Your task to perform on an android device: turn on translation in the chrome app Image 0: 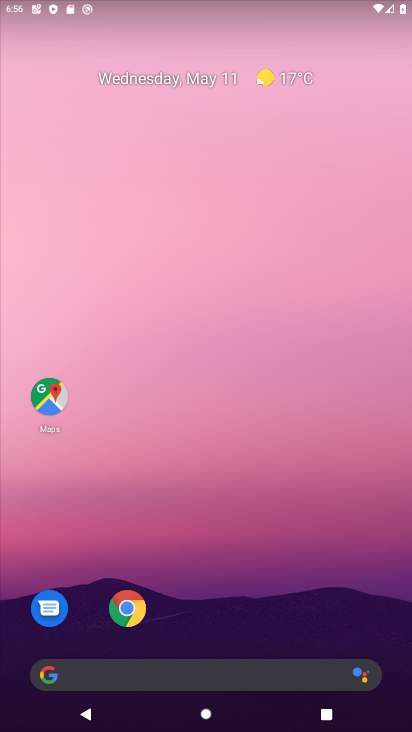
Step 0: click (118, 595)
Your task to perform on an android device: turn on translation in the chrome app Image 1: 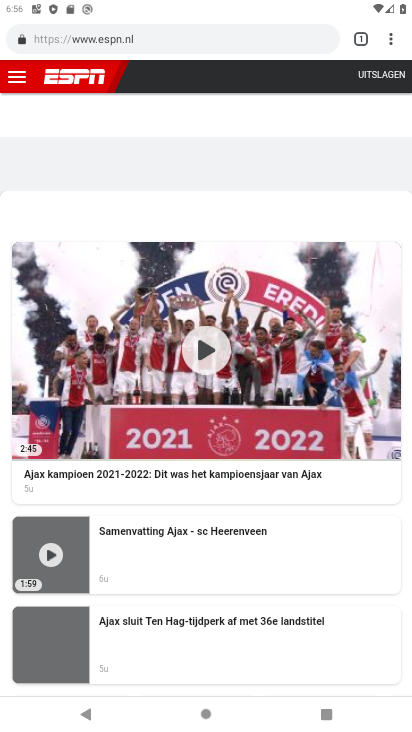
Step 1: click (382, 46)
Your task to perform on an android device: turn on translation in the chrome app Image 2: 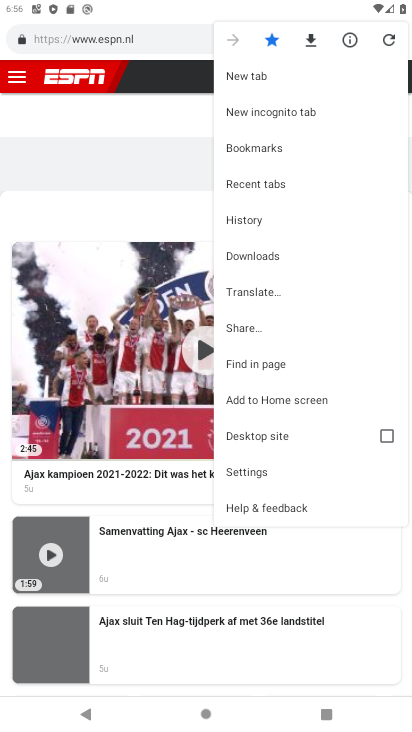
Step 2: click (251, 464)
Your task to perform on an android device: turn on translation in the chrome app Image 3: 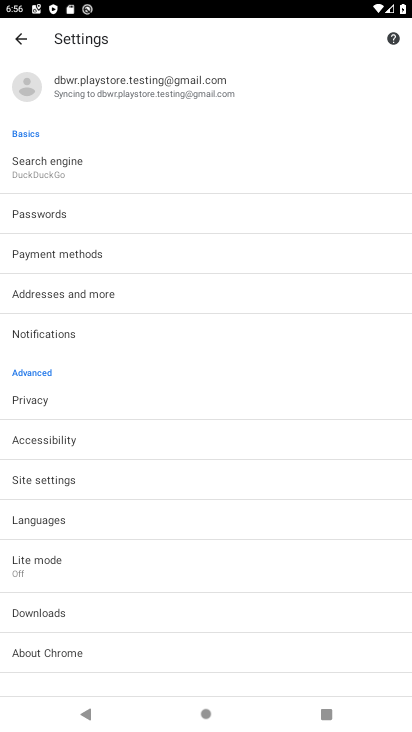
Step 3: click (199, 514)
Your task to perform on an android device: turn on translation in the chrome app Image 4: 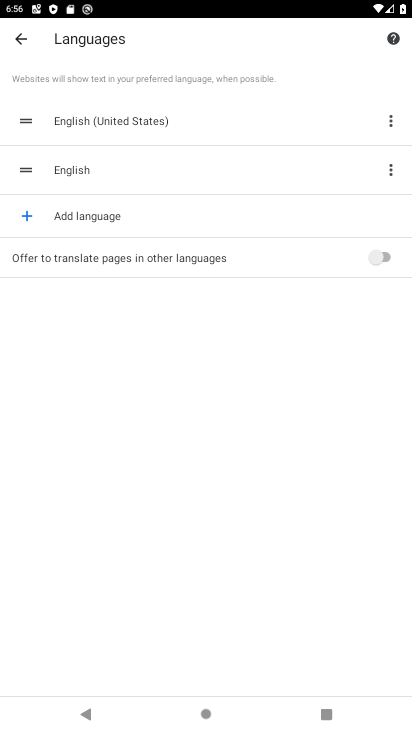
Step 4: click (366, 259)
Your task to perform on an android device: turn on translation in the chrome app Image 5: 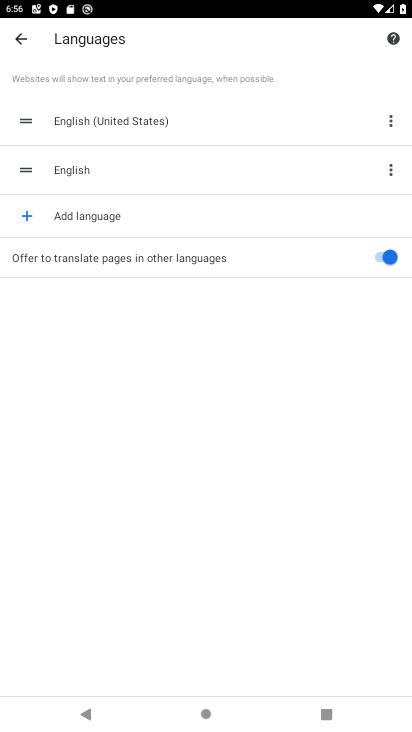
Step 5: task complete